Your task to perform on an android device: empty trash in the gmail app Image 0: 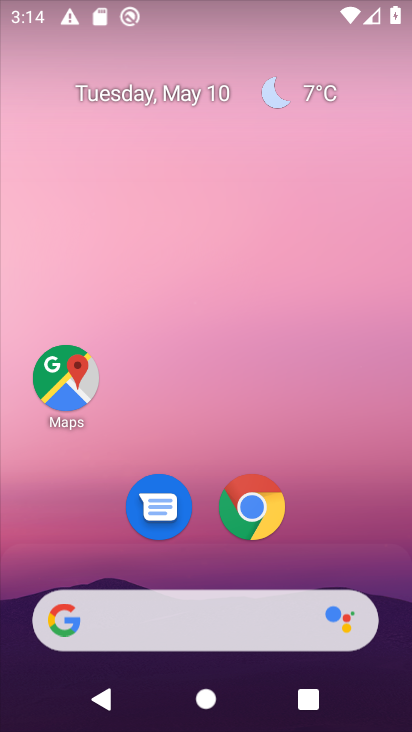
Step 0: drag from (161, 597) to (282, 90)
Your task to perform on an android device: empty trash in the gmail app Image 1: 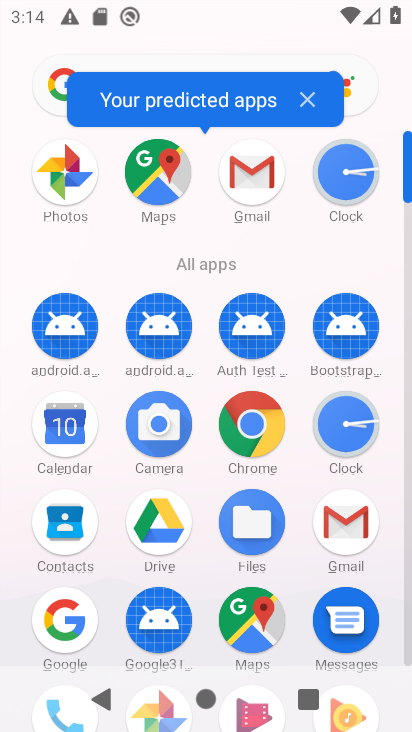
Step 1: click (347, 521)
Your task to perform on an android device: empty trash in the gmail app Image 2: 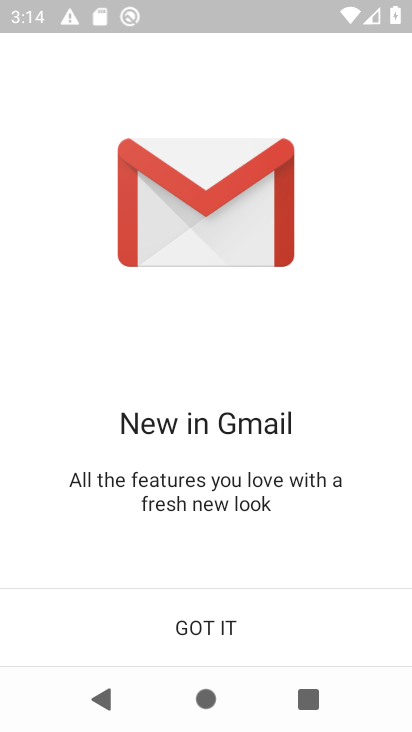
Step 2: click (217, 633)
Your task to perform on an android device: empty trash in the gmail app Image 3: 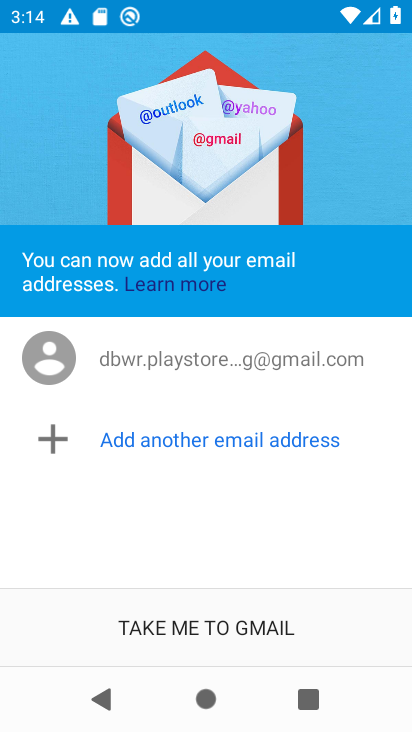
Step 3: click (223, 611)
Your task to perform on an android device: empty trash in the gmail app Image 4: 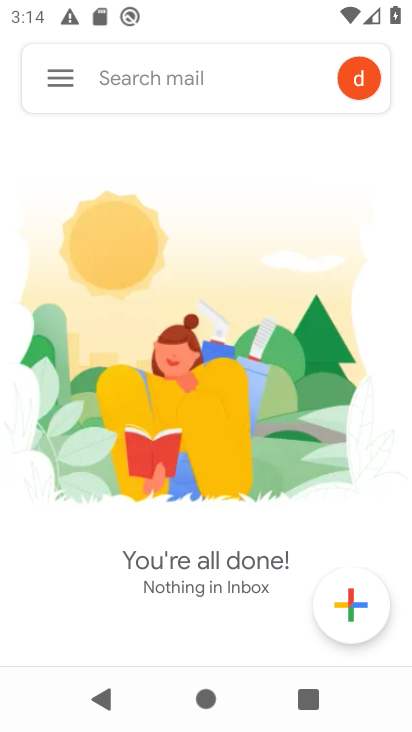
Step 4: click (68, 78)
Your task to perform on an android device: empty trash in the gmail app Image 5: 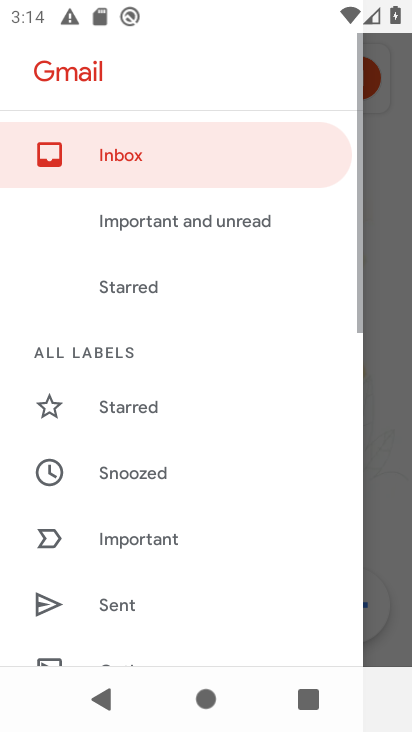
Step 5: drag from (146, 582) to (242, 342)
Your task to perform on an android device: empty trash in the gmail app Image 6: 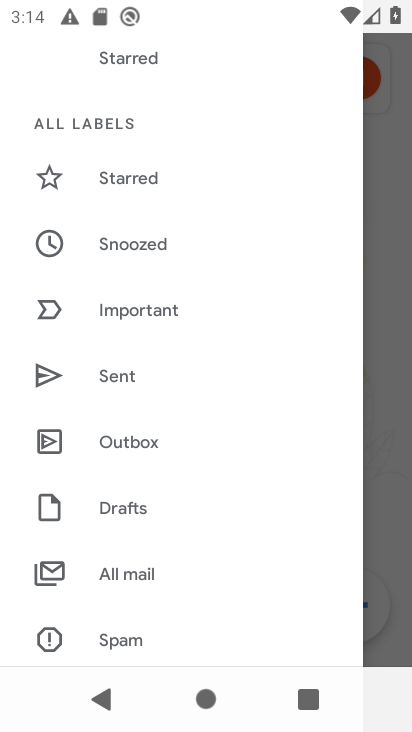
Step 6: drag from (162, 580) to (220, 352)
Your task to perform on an android device: empty trash in the gmail app Image 7: 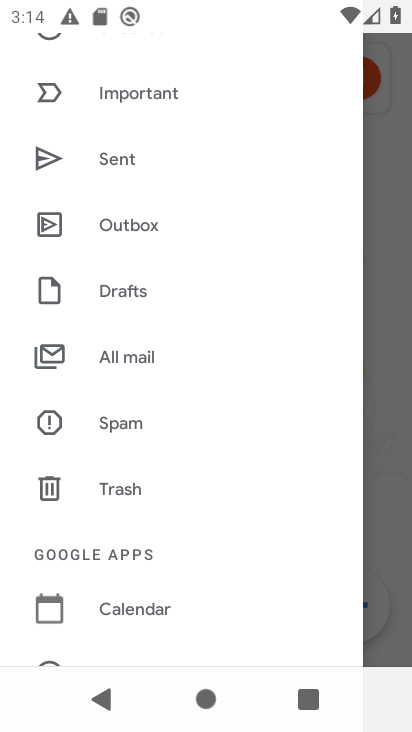
Step 7: click (139, 485)
Your task to perform on an android device: empty trash in the gmail app Image 8: 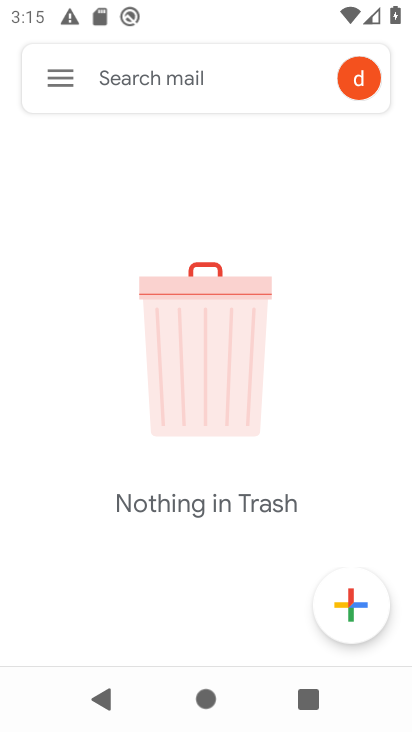
Step 8: task complete